Your task to perform on an android device: open the mobile data screen to see how much data has been used Image 0: 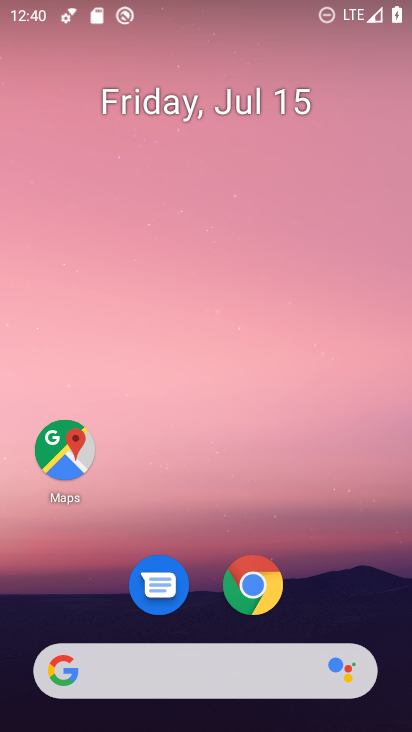
Step 0: drag from (320, 544) to (203, 8)
Your task to perform on an android device: open the mobile data screen to see how much data has been used Image 1: 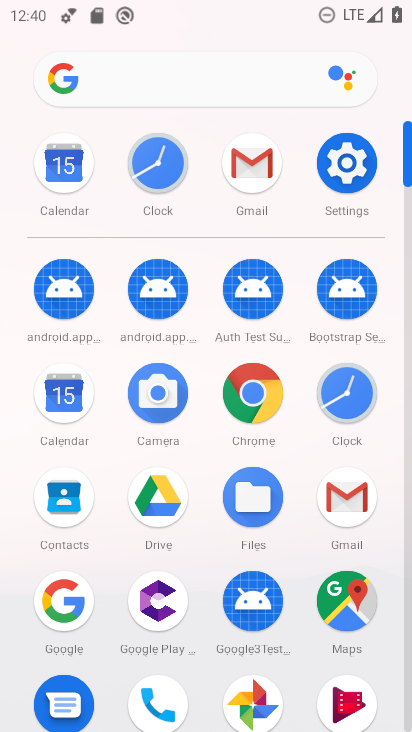
Step 1: click (337, 157)
Your task to perform on an android device: open the mobile data screen to see how much data has been used Image 2: 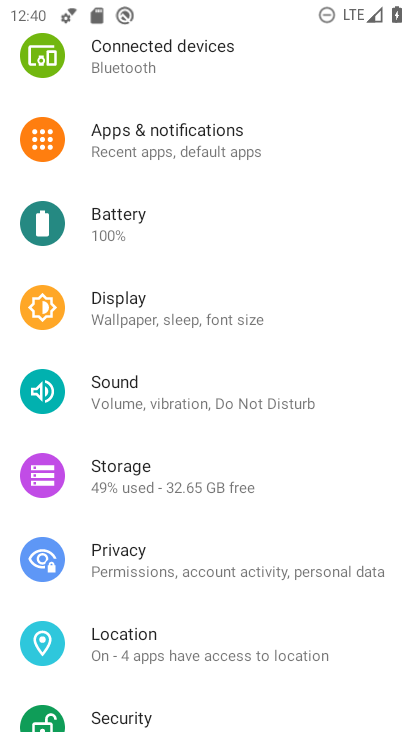
Step 2: drag from (253, 256) to (269, 630)
Your task to perform on an android device: open the mobile data screen to see how much data has been used Image 3: 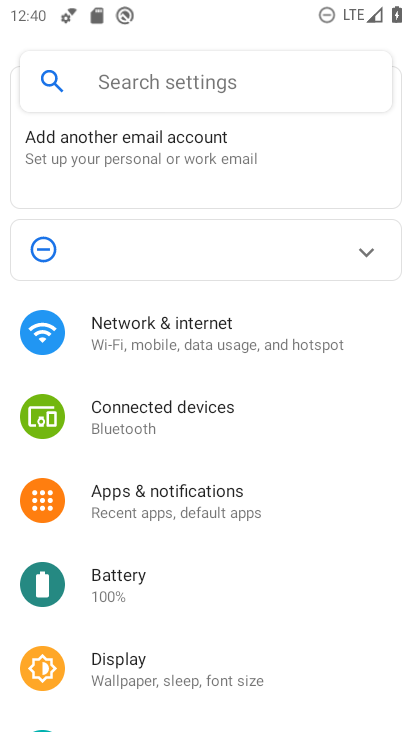
Step 3: click (207, 337)
Your task to perform on an android device: open the mobile data screen to see how much data has been used Image 4: 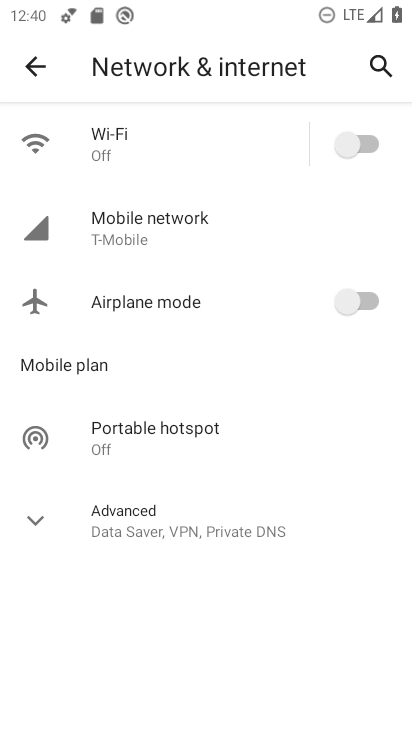
Step 4: click (151, 215)
Your task to perform on an android device: open the mobile data screen to see how much data has been used Image 5: 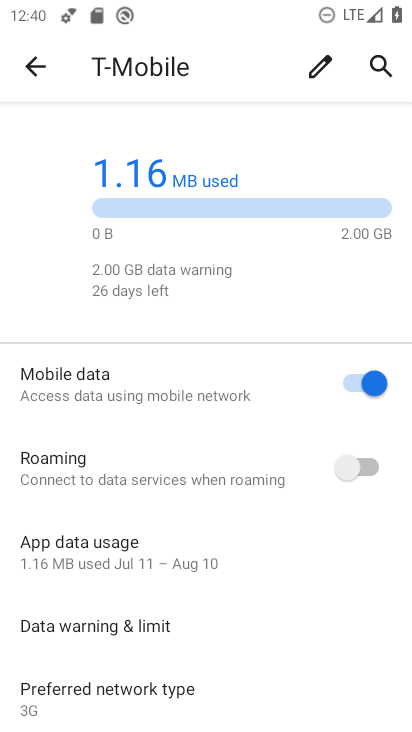
Step 5: task complete